Your task to perform on an android device: What's the price of the Sony TV? Image 0: 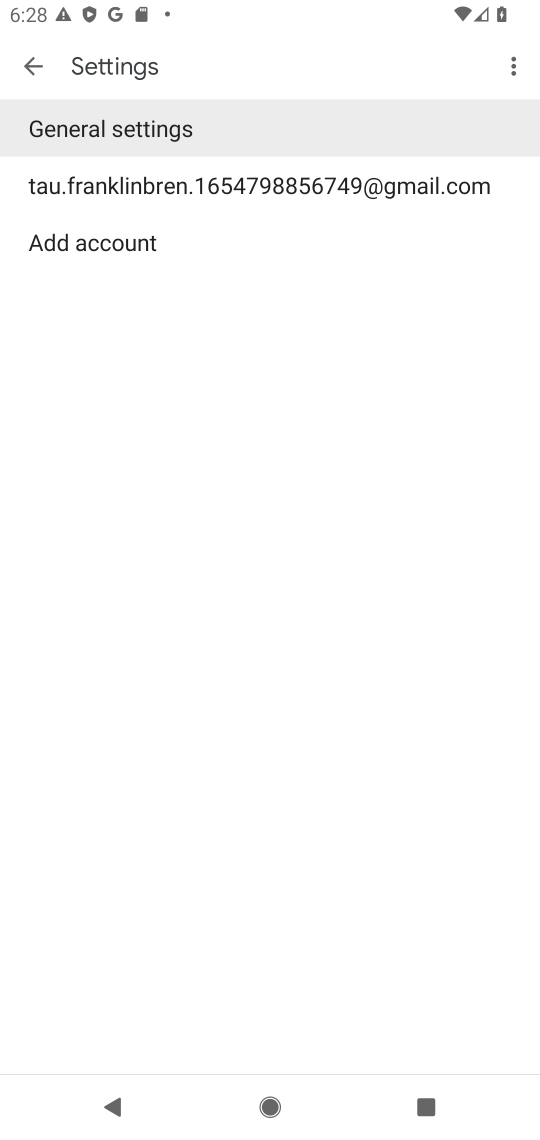
Step 0: press home button
Your task to perform on an android device: What's the price of the Sony TV? Image 1: 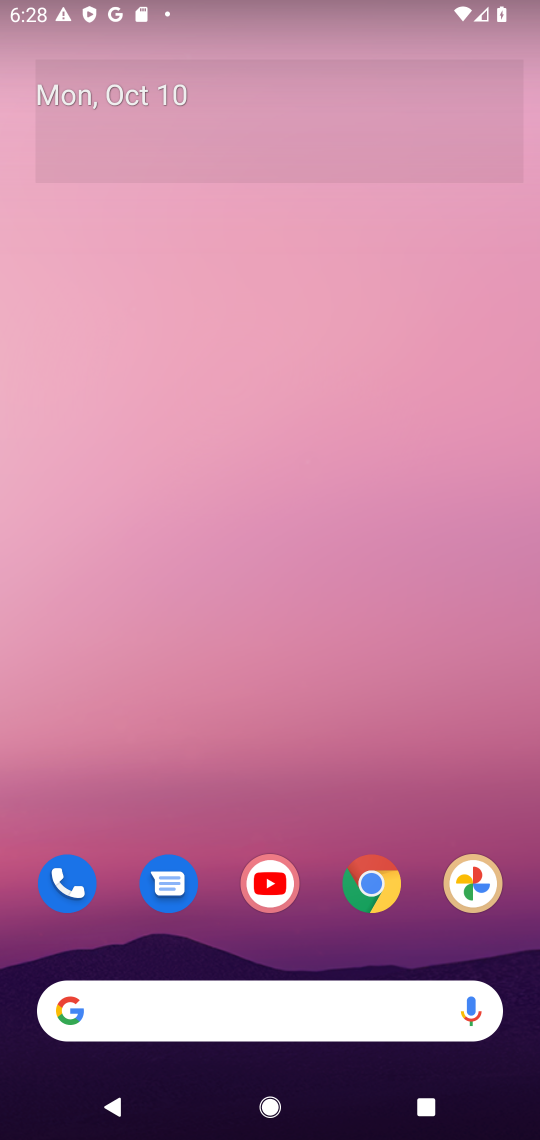
Step 1: drag from (395, 932) to (349, 2)
Your task to perform on an android device: What's the price of the Sony TV? Image 2: 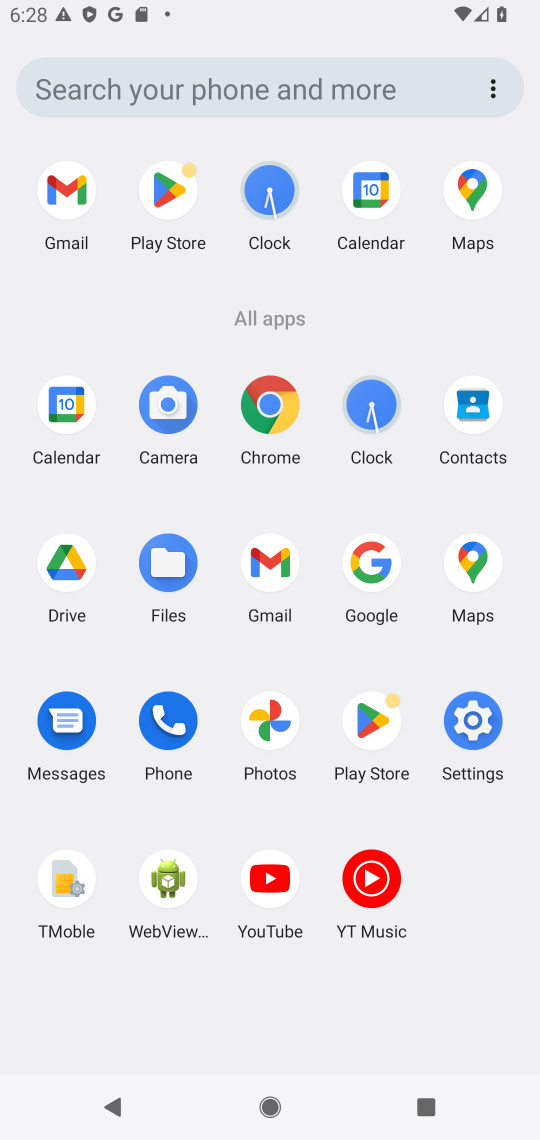
Step 2: click (370, 576)
Your task to perform on an android device: What's the price of the Sony TV? Image 3: 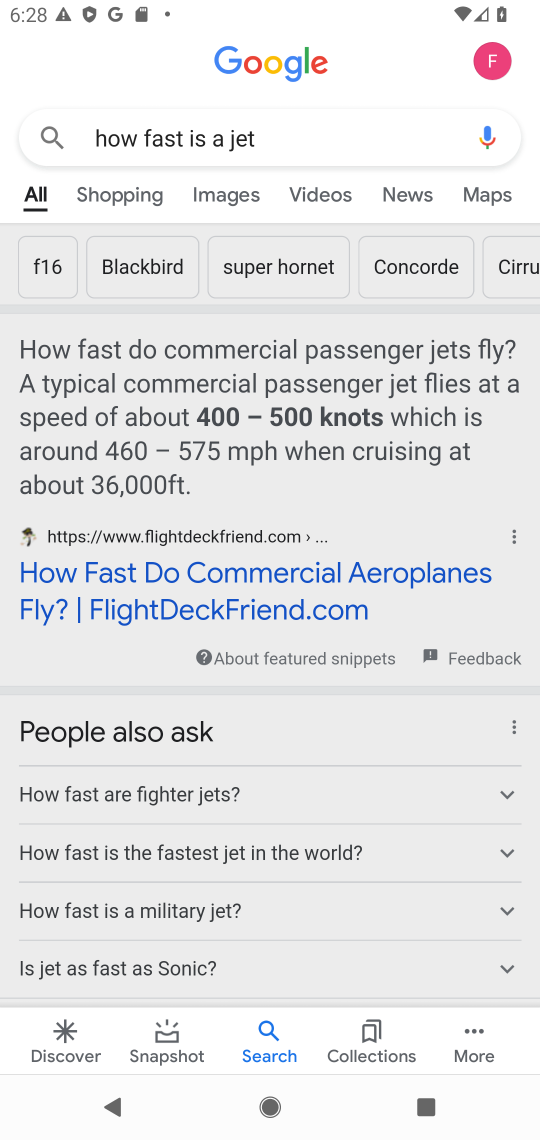
Step 3: click (336, 140)
Your task to perform on an android device: What's the price of the Sony TV? Image 4: 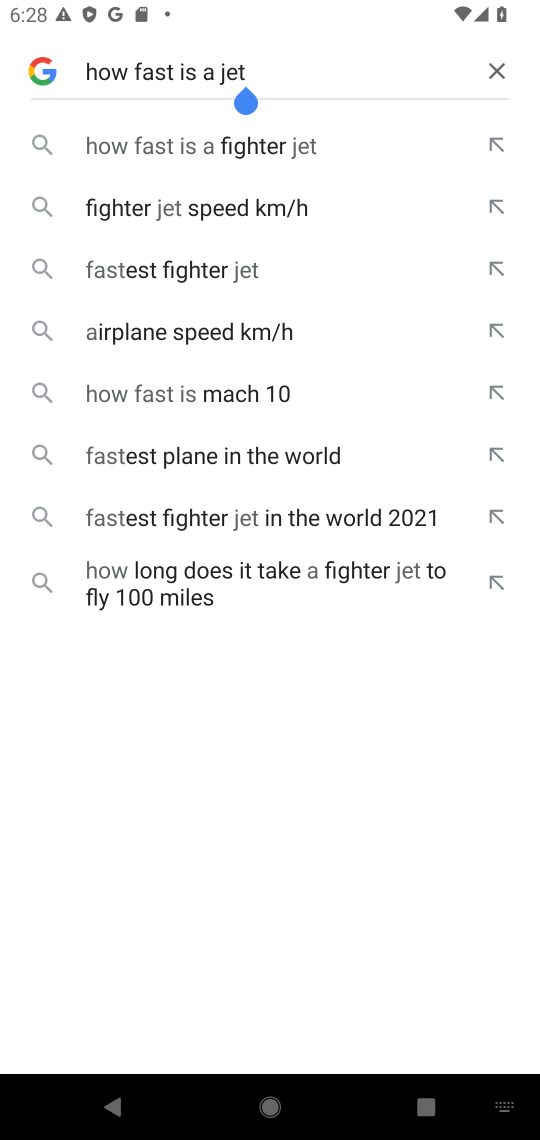
Step 4: click (496, 81)
Your task to perform on an android device: What's the price of the Sony TV? Image 5: 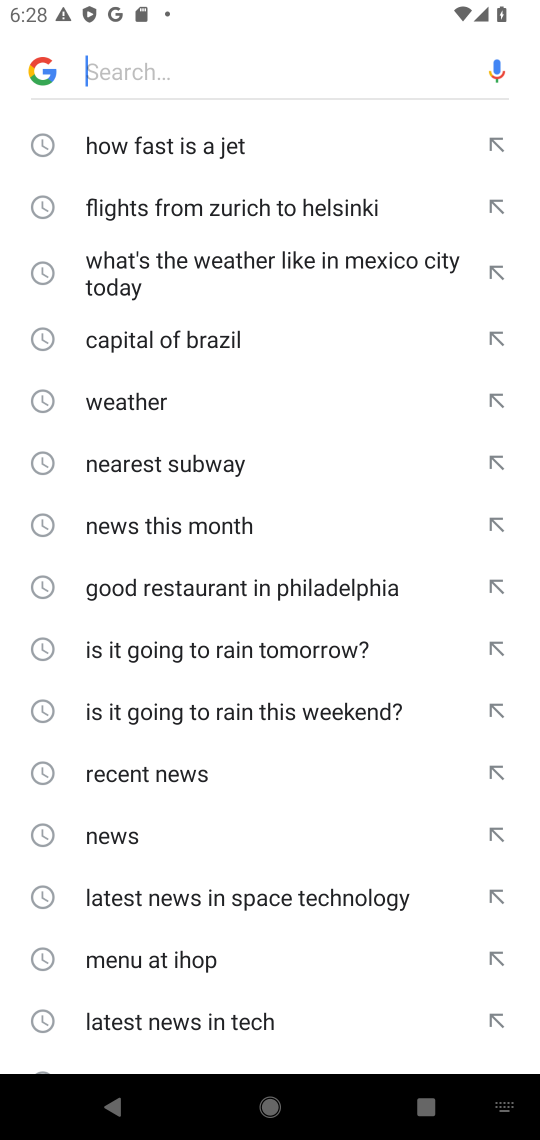
Step 5: type "price of the Sony TV?"
Your task to perform on an android device: What's the price of the Sony TV? Image 6: 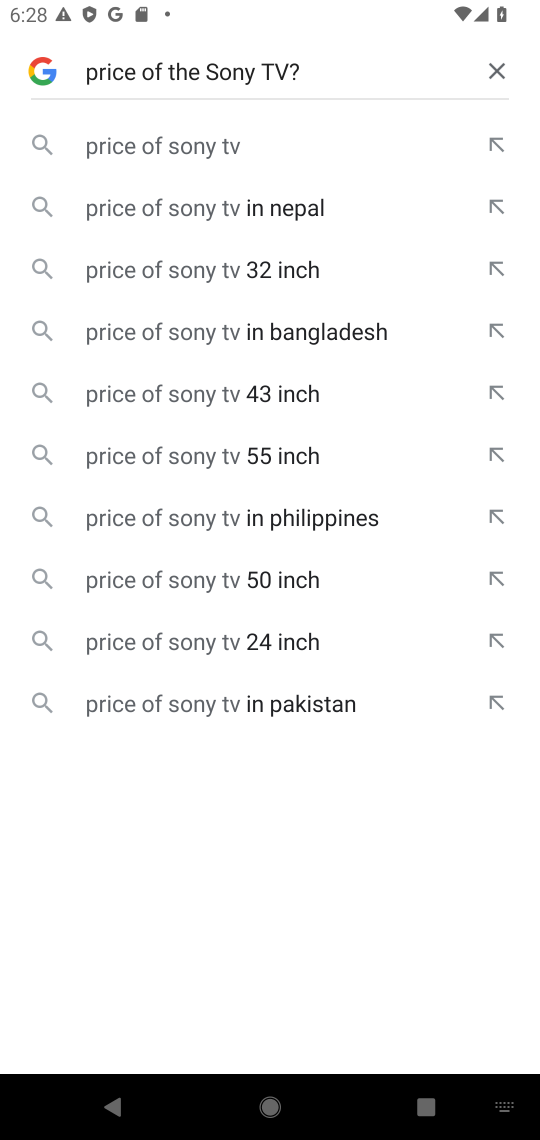
Step 6: click (187, 139)
Your task to perform on an android device: What's the price of the Sony TV? Image 7: 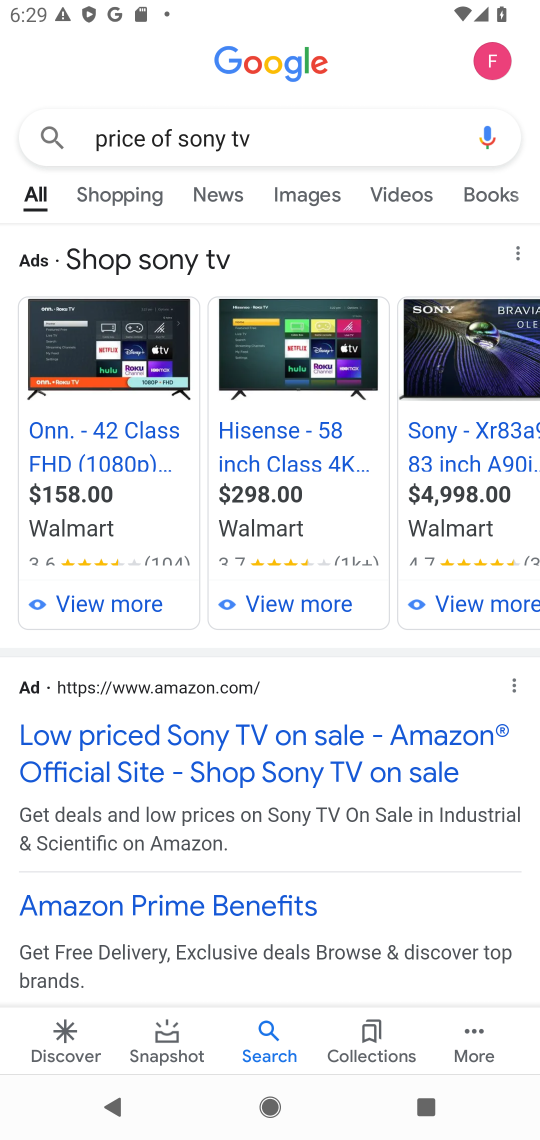
Step 7: task complete